Your task to perform on an android device: toggle airplane mode Image 0: 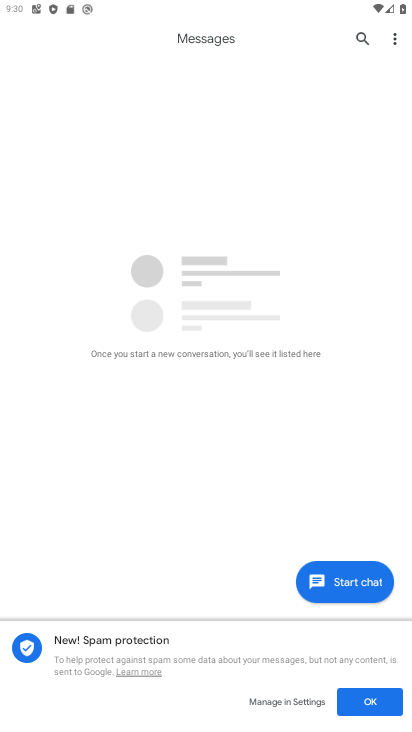
Step 0: press home button
Your task to perform on an android device: toggle airplane mode Image 1: 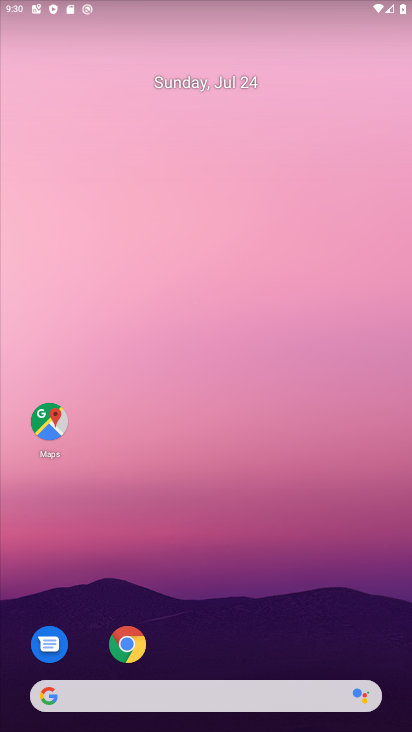
Step 1: drag from (212, 1) to (196, 446)
Your task to perform on an android device: toggle airplane mode Image 2: 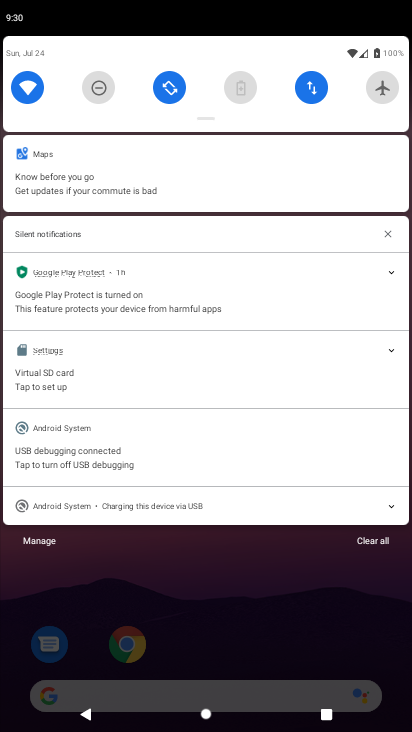
Step 2: click (381, 77)
Your task to perform on an android device: toggle airplane mode Image 3: 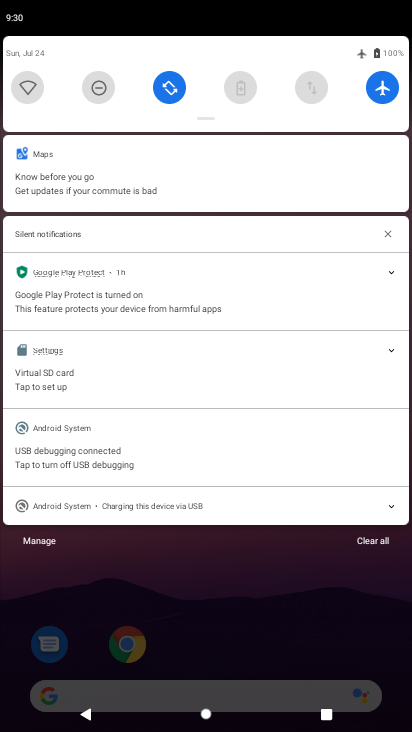
Step 3: task complete